Your task to perform on an android device: Search for seafood restaurants on Google Maps Image 0: 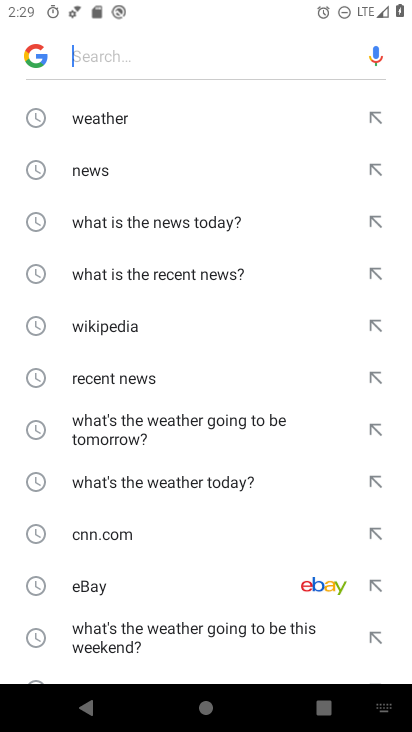
Step 0: press home button
Your task to perform on an android device: Search for seafood restaurants on Google Maps Image 1: 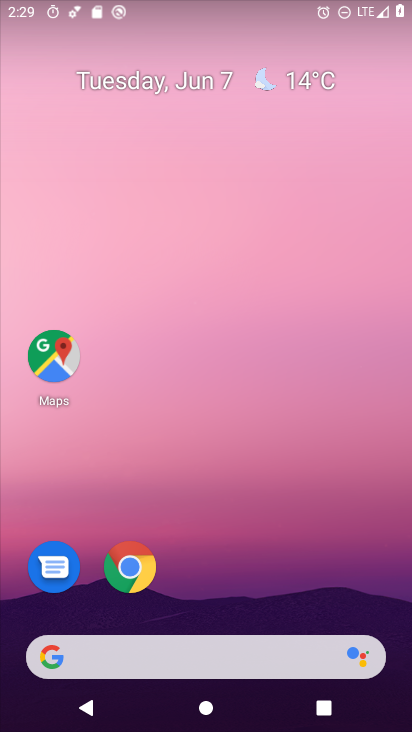
Step 1: drag from (304, 563) to (358, 76)
Your task to perform on an android device: Search for seafood restaurants on Google Maps Image 2: 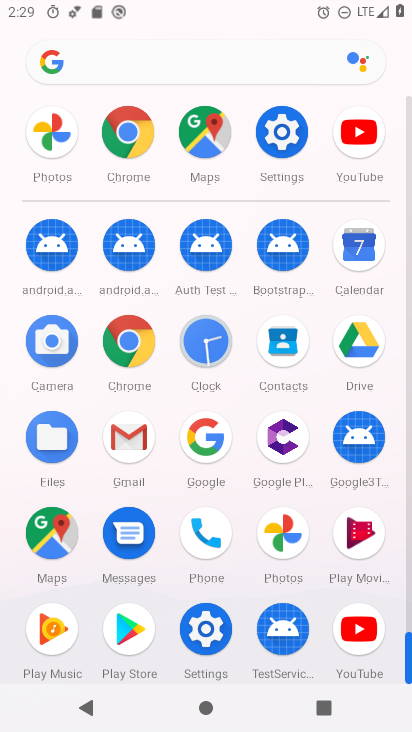
Step 2: click (32, 535)
Your task to perform on an android device: Search for seafood restaurants on Google Maps Image 3: 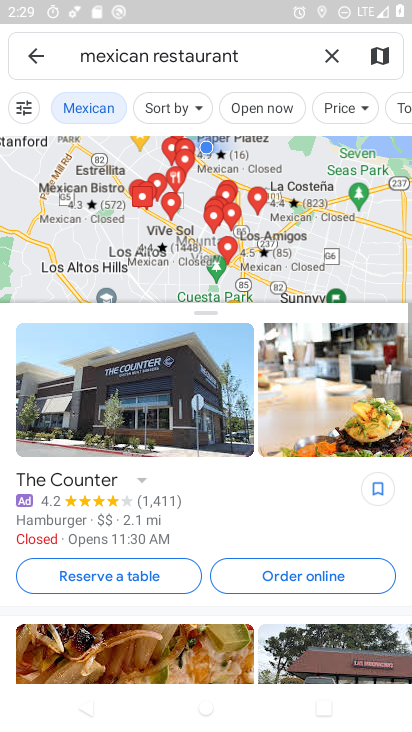
Step 3: click (333, 52)
Your task to perform on an android device: Search for seafood restaurants on Google Maps Image 4: 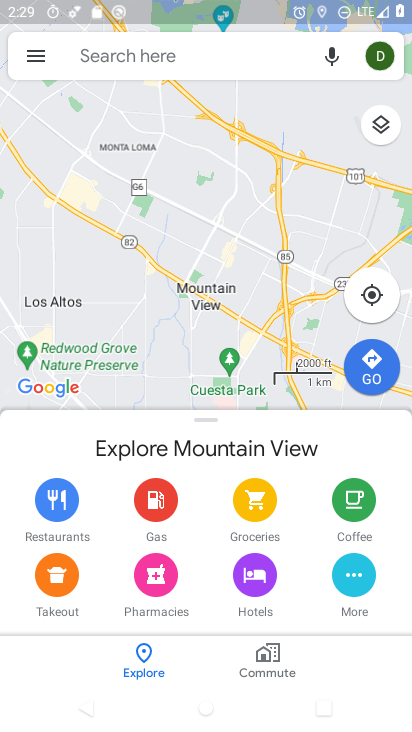
Step 4: click (239, 67)
Your task to perform on an android device: Search for seafood restaurants on Google Maps Image 5: 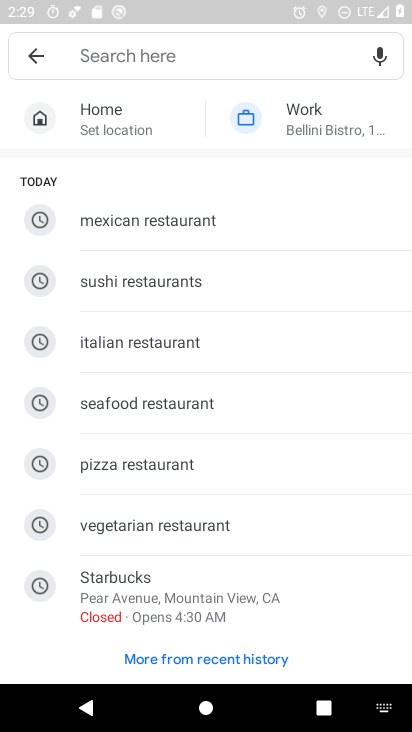
Step 5: click (177, 411)
Your task to perform on an android device: Search for seafood restaurants on Google Maps Image 6: 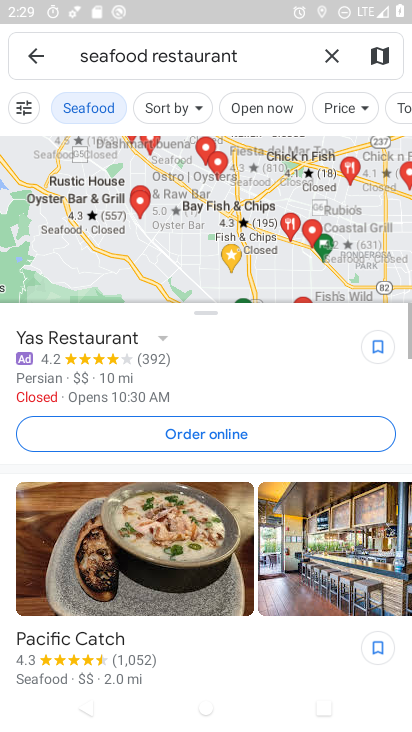
Step 6: task complete